Your task to perform on an android device: Search for vegetarian restaurants on Maps Image 0: 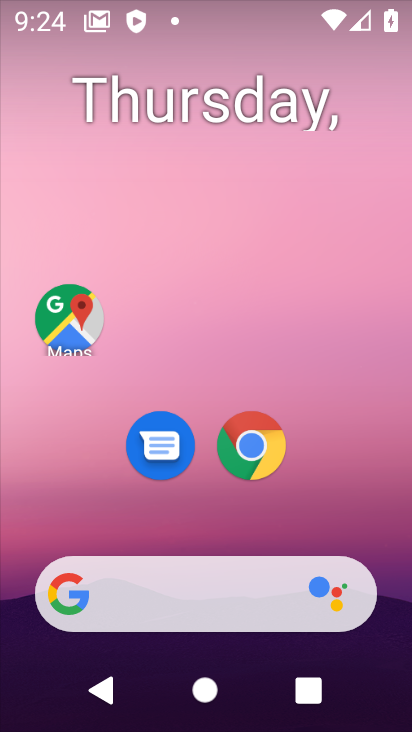
Step 0: click (71, 314)
Your task to perform on an android device: Search for vegetarian restaurants on Maps Image 1: 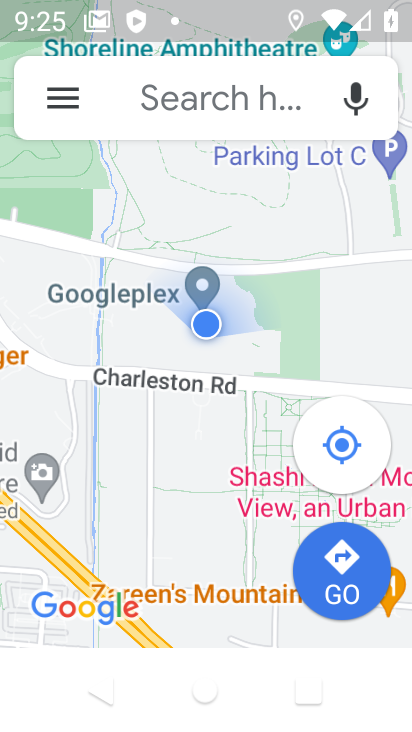
Step 1: click (154, 103)
Your task to perform on an android device: Search for vegetarian restaurants on Maps Image 2: 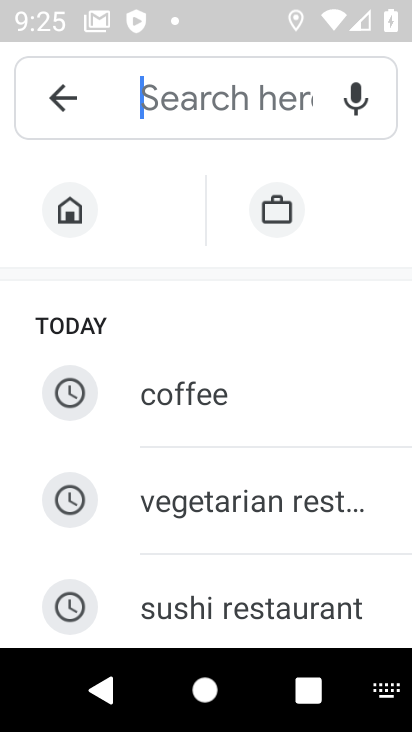
Step 2: click (153, 494)
Your task to perform on an android device: Search for vegetarian restaurants on Maps Image 3: 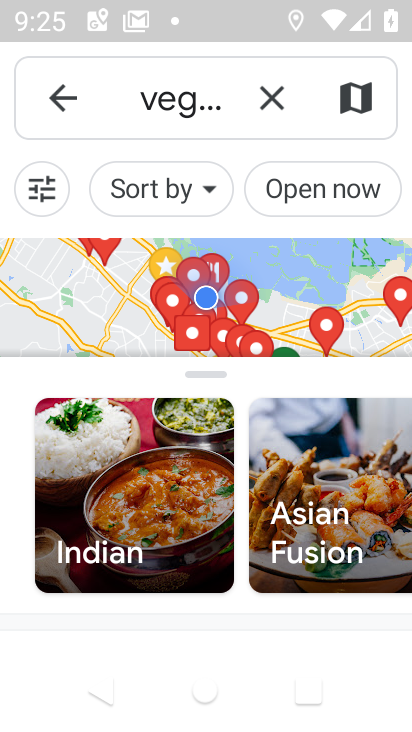
Step 3: task complete